Your task to perform on an android device: move an email to a new category in the gmail app Image 0: 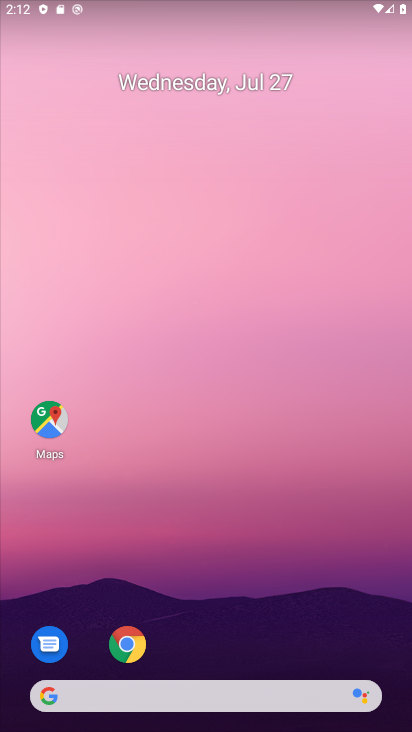
Step 0: drag from (240, 658) to (222, 160)
Your task to perform on an android device: move an email to a new category in the gmail app Image 1: 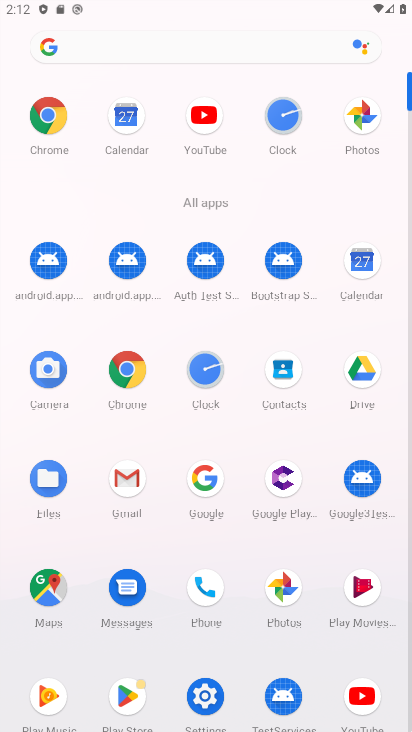
Step 1: click (125, 481)
Your task to perform on an android device: move an email to a new category in the gmail app Image 2: 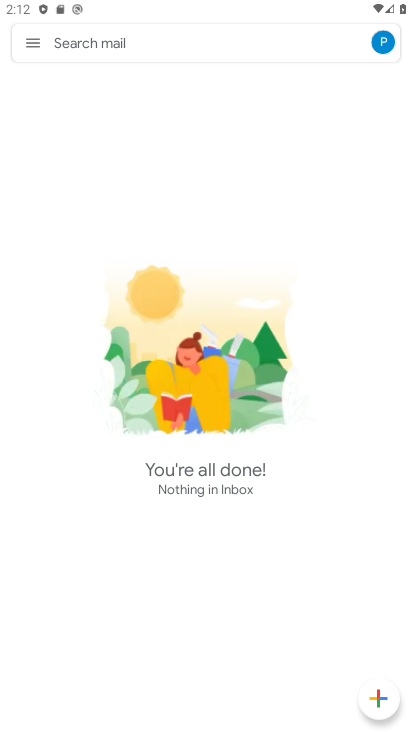
Step 2: task complete